Your task to perform on an android device: open app "Pluto TV - Live TV and Movies" (install if not already installed) Image 0: 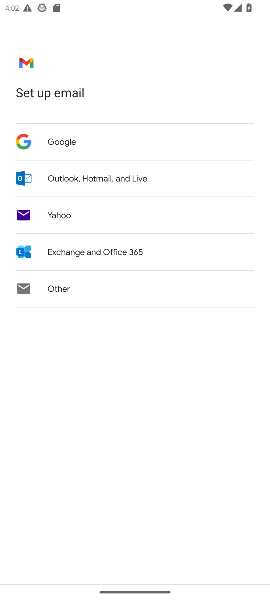
Step 0: press home button
Your task to perform on an android device: open app "Pluto TV - Live TV and Movies" (install if not already installed) Image 1: 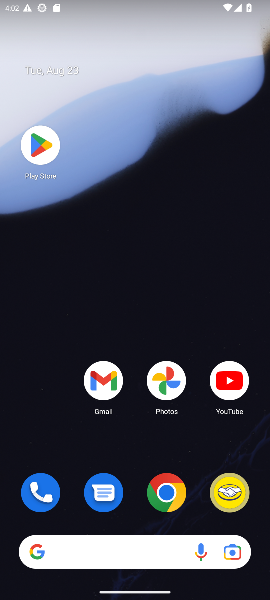
Step 1: click (48, 167)
Your task to perform on an android device: open app "Pluto TV - Live TV and Movies" (install if not already installed) Image 2: 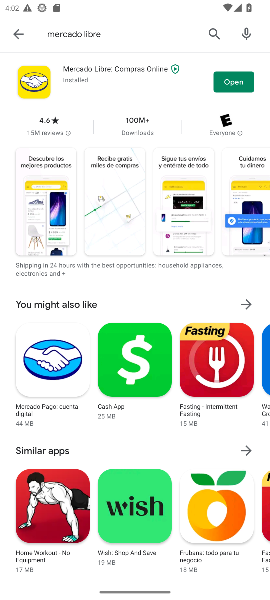
Step 2: click (217, 38)
Your task to perform on an android device: open app "Pluto TV - Live TV and Movies" (install if not already installed) Image 3: 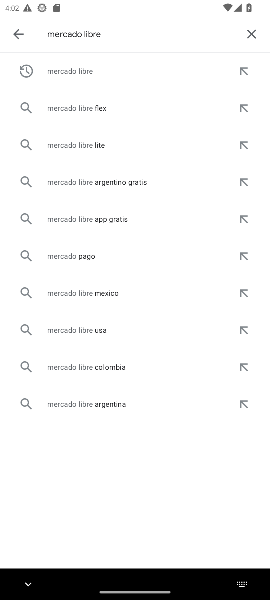
Step 3: click (247, 36)
Your task to perform on an android device: open app "Pluto TV - Live TV and Movies" (install if not already installed) Image 4: 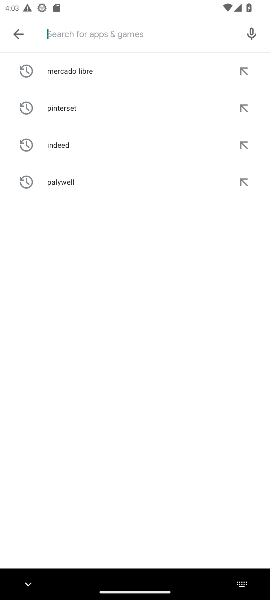
Step 4: type "pluto"
Your task to perform on an android device: open app "Pluto TV - Live TV and Movies" (install if not already installed) Image 5: 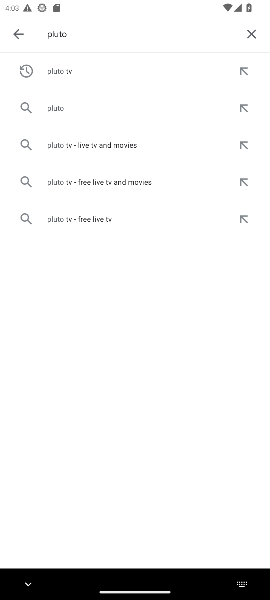
Step 5: click (95, 79)
Your task to perform on an android device: open app "Pluto TV - Live TV and Movies" (install if not already installed) Image 6: 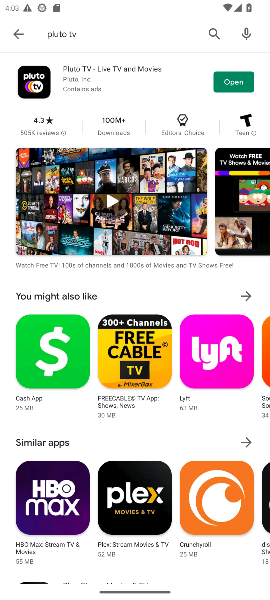
Step 6: click (232, 88)
Your task to perform on an android device: open app "Pluto TV - Live TV and Movies" (install if not already installed) Image 7: 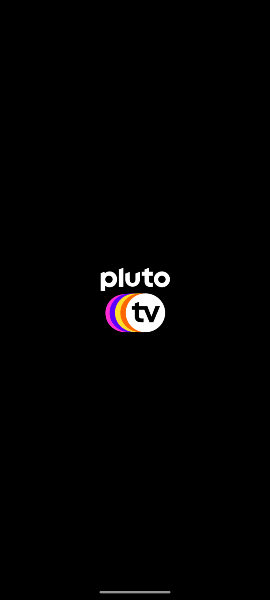
Step 7: task complete